Your task to perform on an android device: Go to privacy settings Image 0: 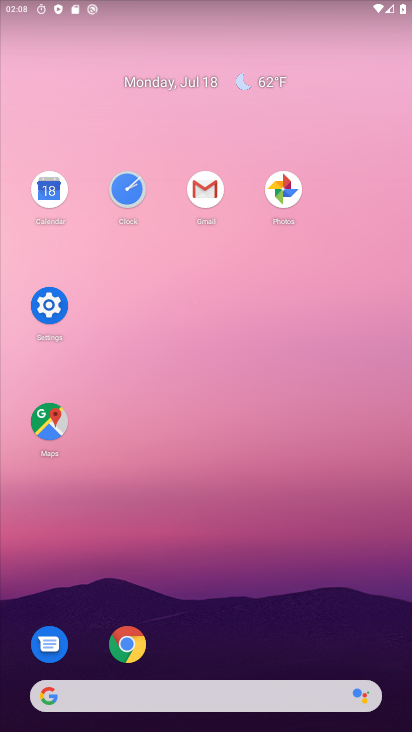
Step 0: click (41, 311)
Your task to perform on an android device: Go to privacy settings Image 1: 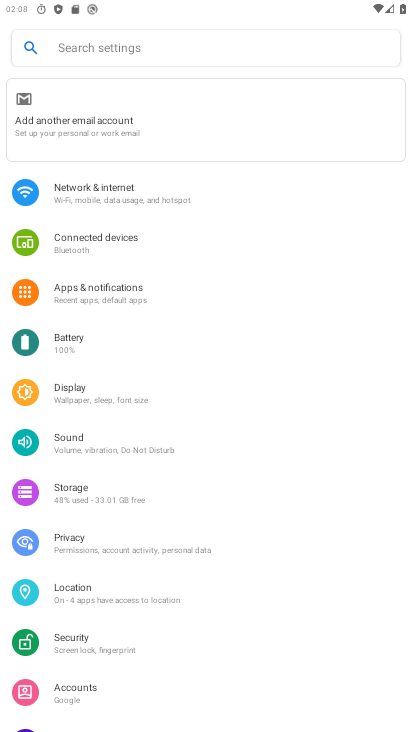
Step 1: click (120, 543)
Your task to perform on an android device: Go to privacy settings Image 2: 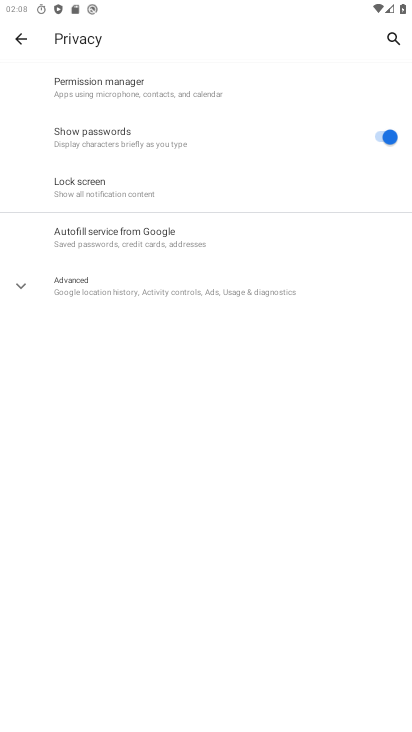
Step 2: task complete